Your task to perform on an android device: check android version Image 0: 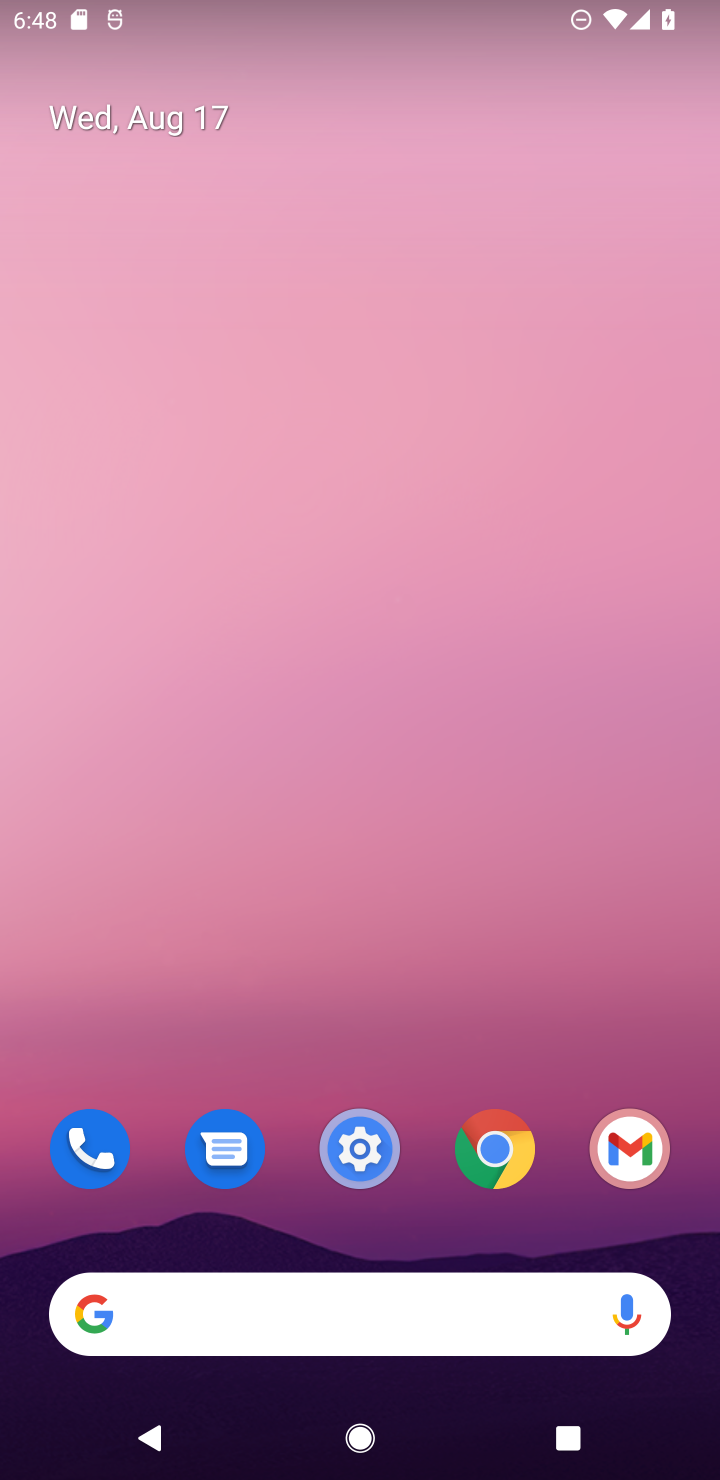
Step 0: click (362, 1147)
Your task to perform on an android device: check android version Image 1: 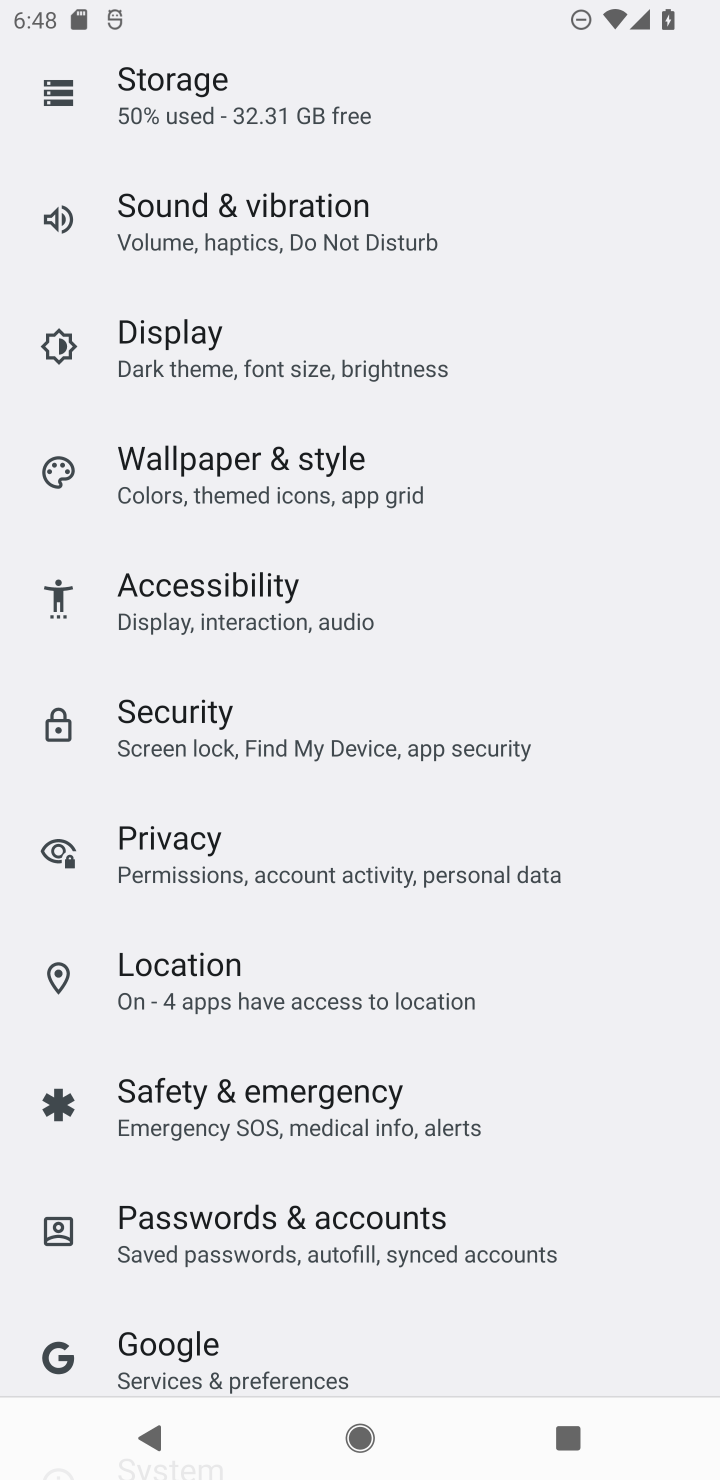
Step 1: drag from (322, 1279) to (322, 398)
Your task to perform on an android device: check android version Image 2: 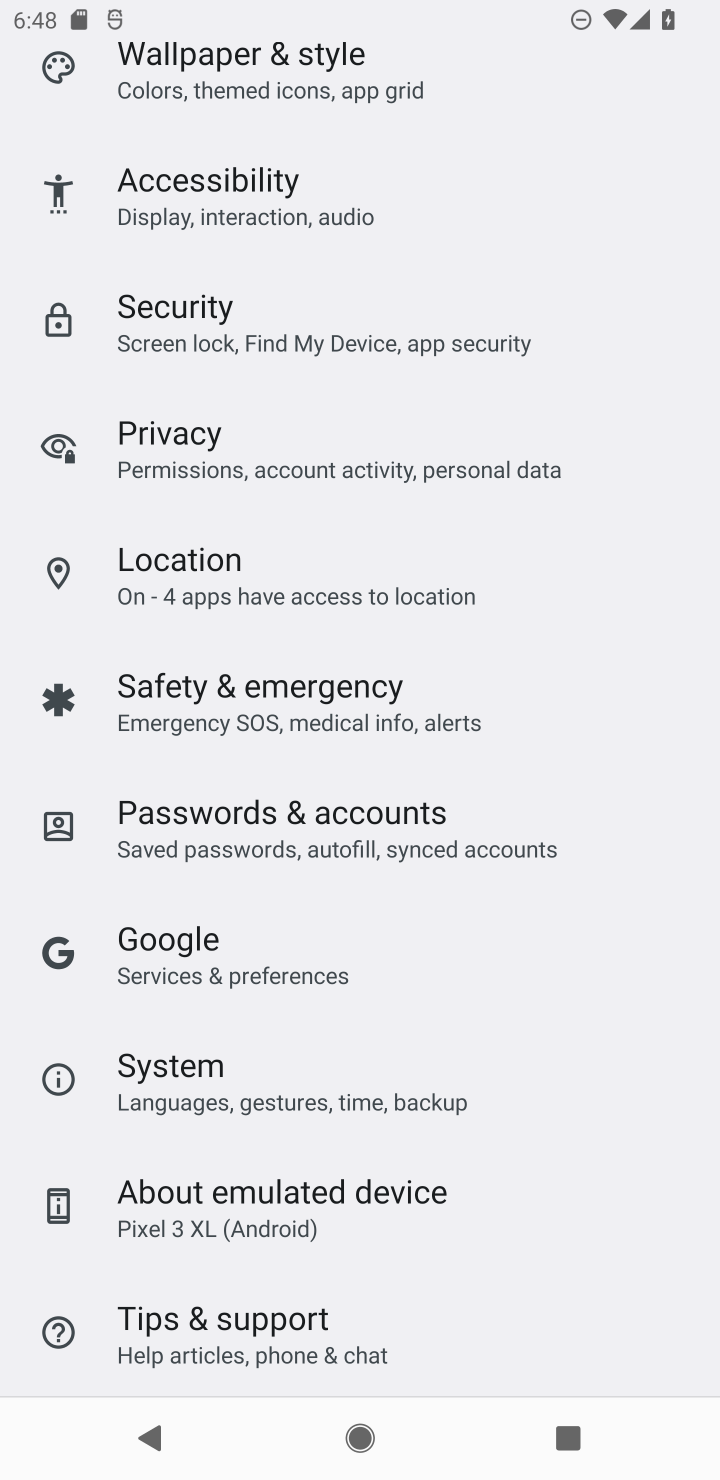
Step 2: click (219, 1189)
Your task to perform on an android device: check android version Image 3: 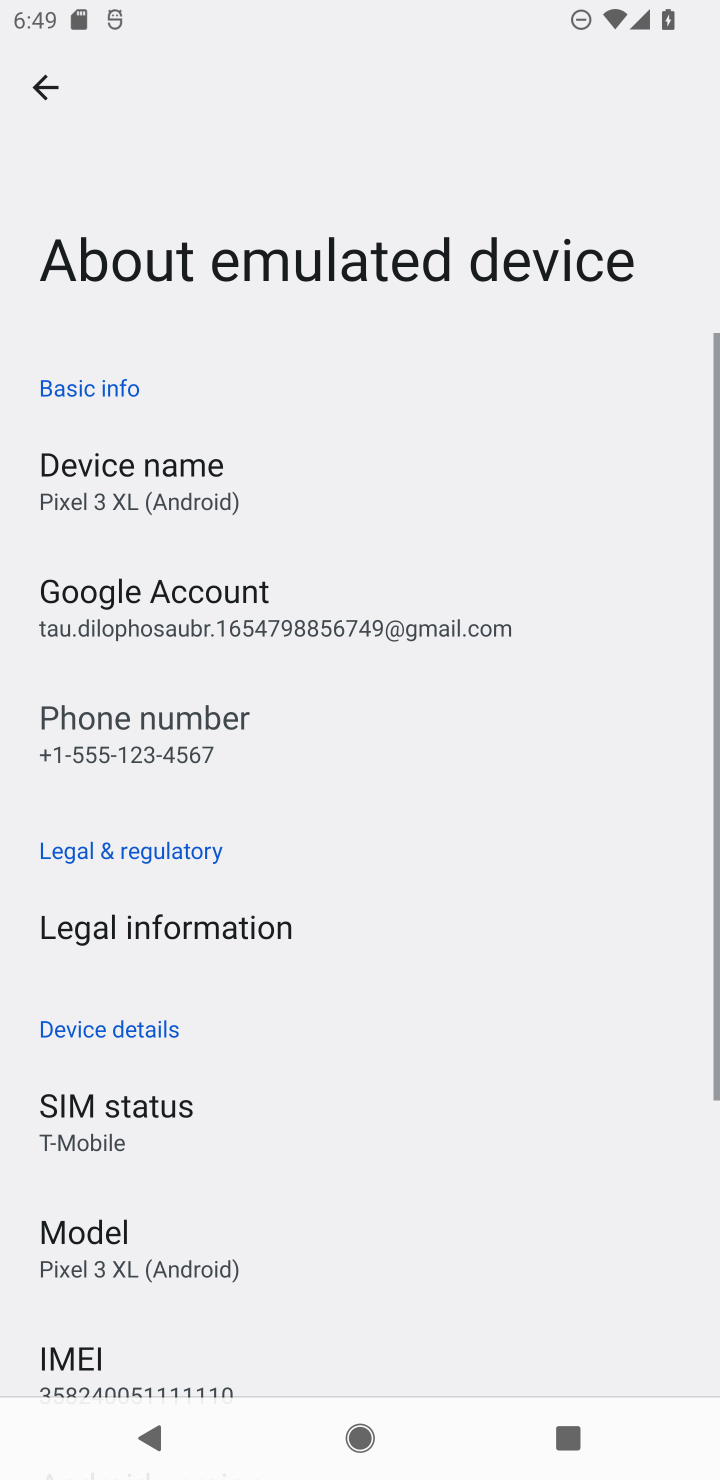
Step 3: drag from (333, 1244) to (346, 305)
Your task to perform on an android device: check android version Image 4: 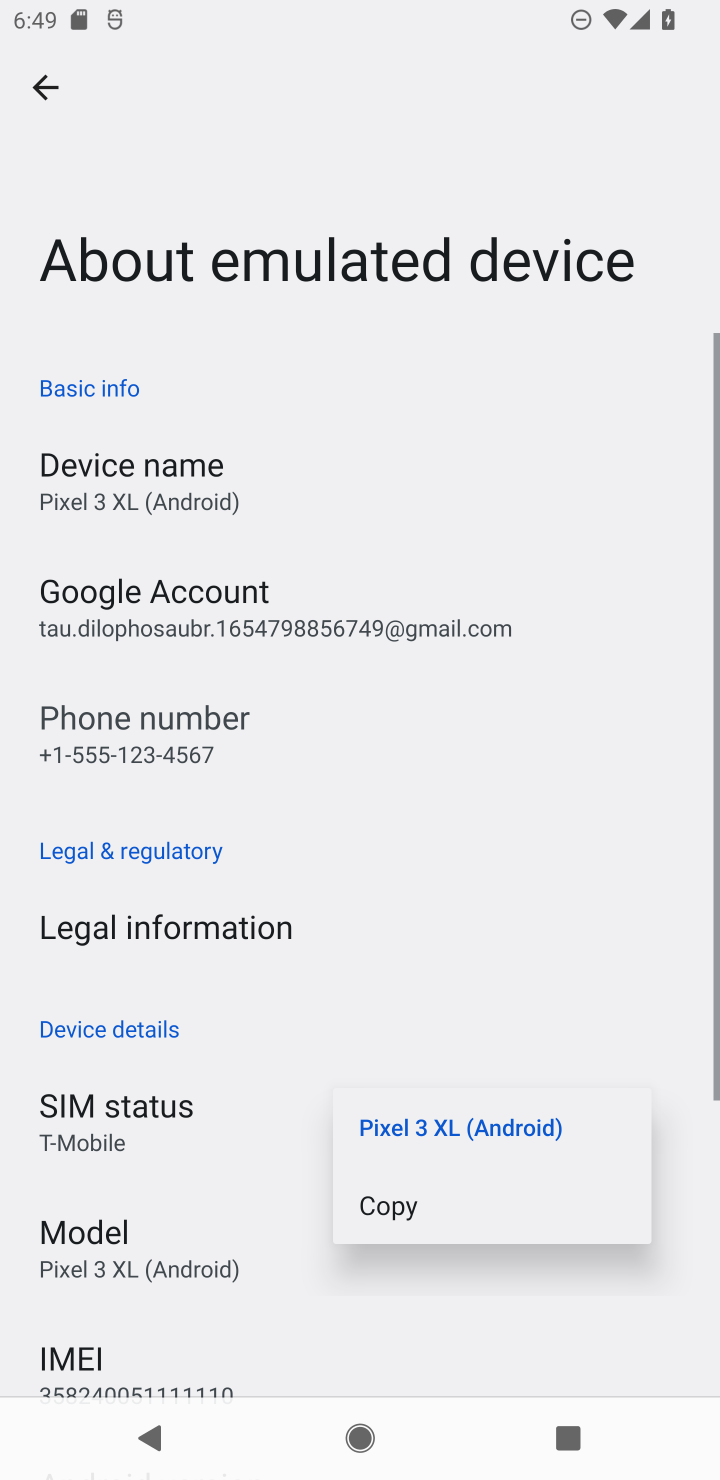
Step 4: drag from (342, 1297) to (341, 503)
Your task to perform on an android device: check android version Image 5: 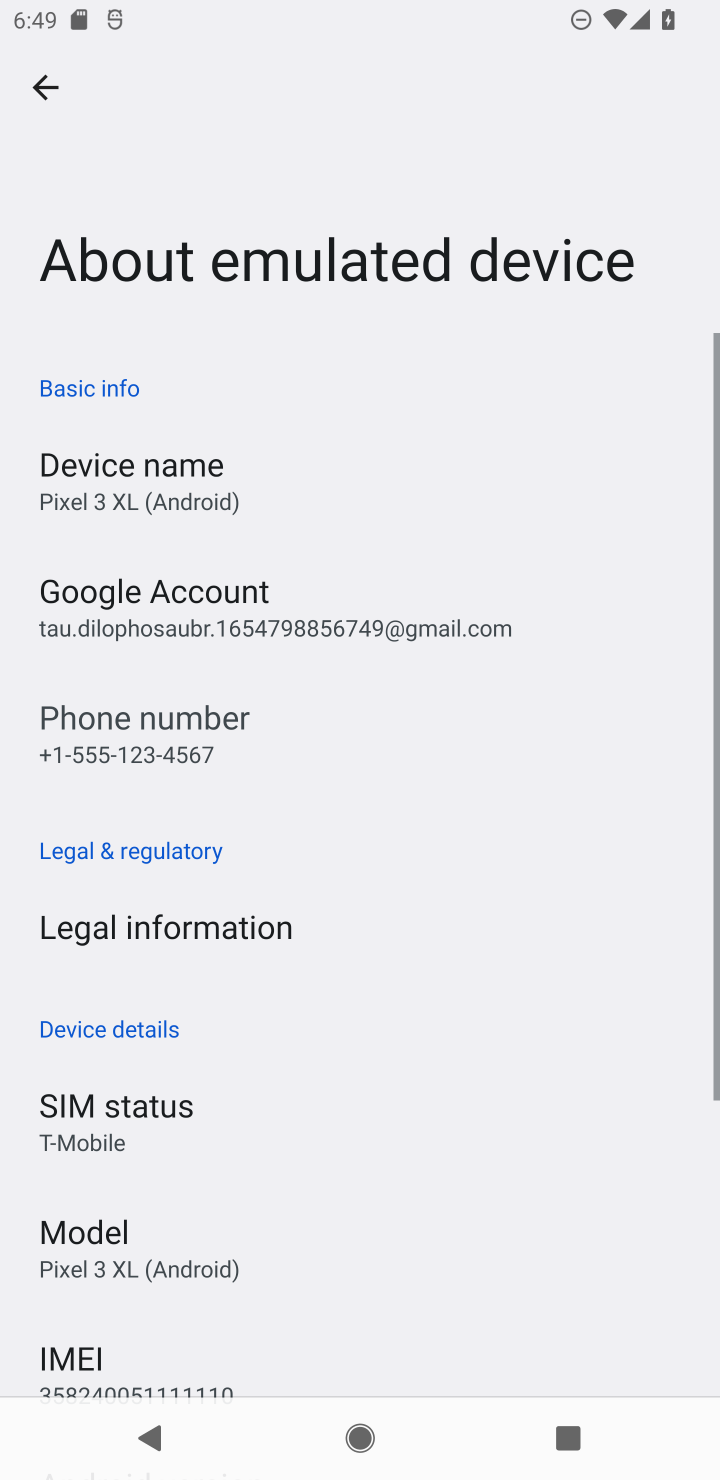
Step 5: drag from (415, 1247) to (437, 55)
Your task to perform on an android device: check android version Image 6: 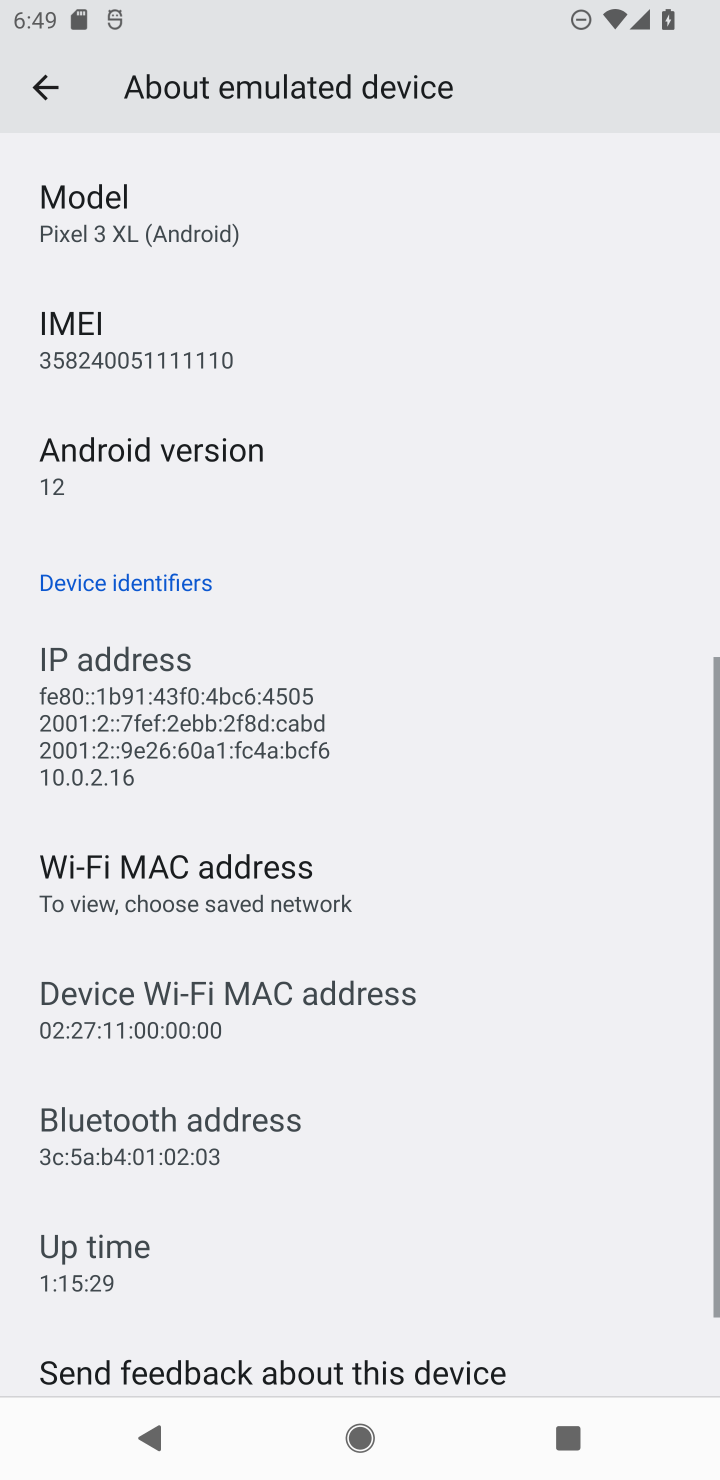
Step 6: click (118, 436)
Your task to perform on an android device: check android version Image 7: 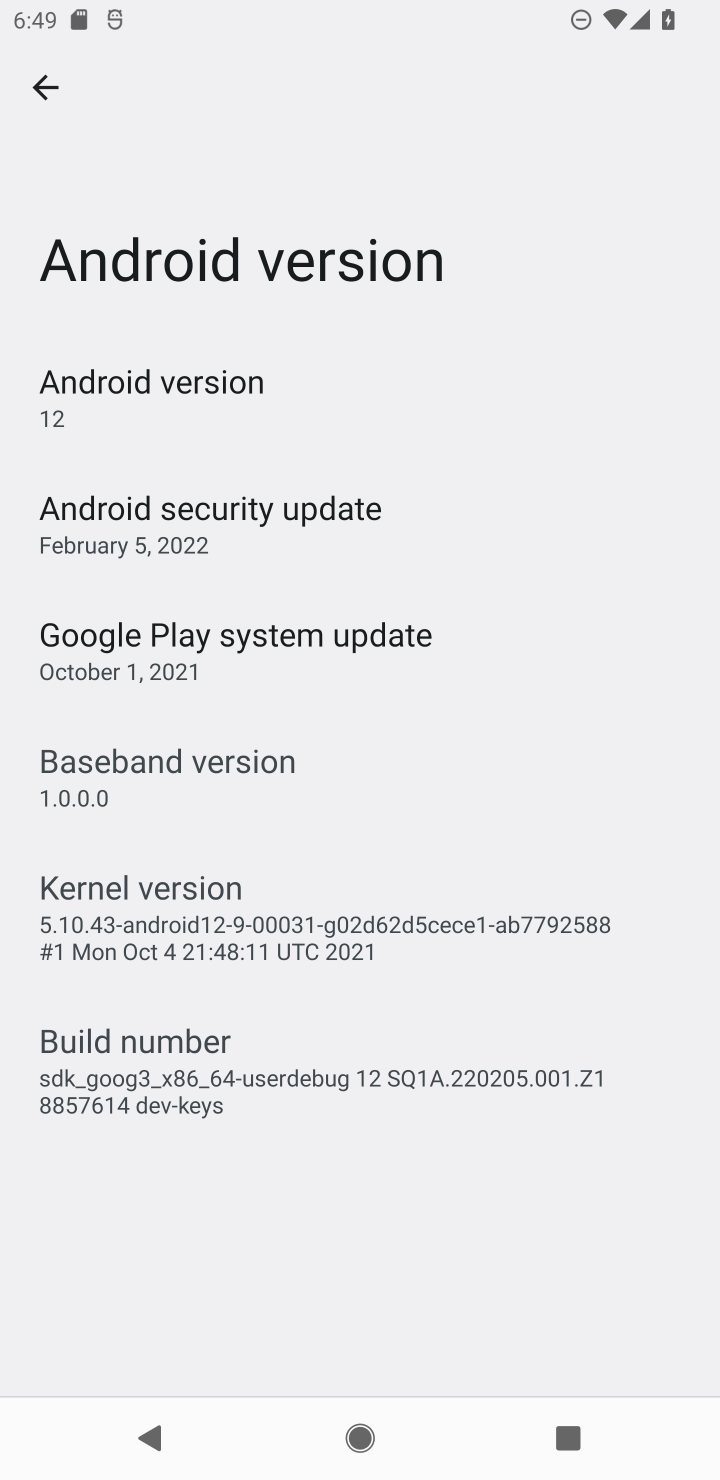
Step 7: task complete